Your task to perform on an android device: turn notification dots on Image 0: 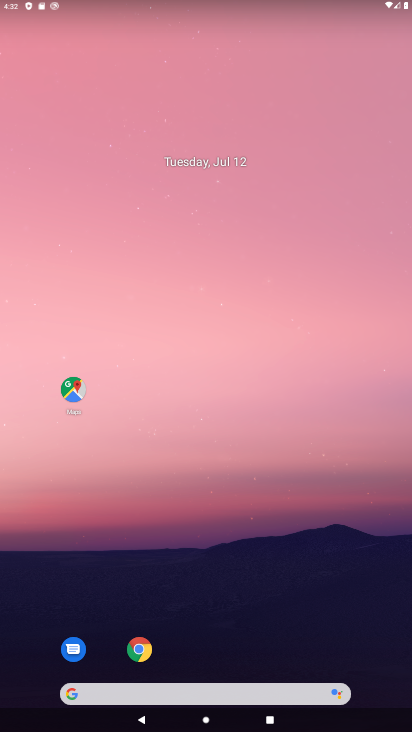
Step 0: drag from (199, 689) to (229, 151)
Your task to perform on an android device: turn notification dots on Image 1: 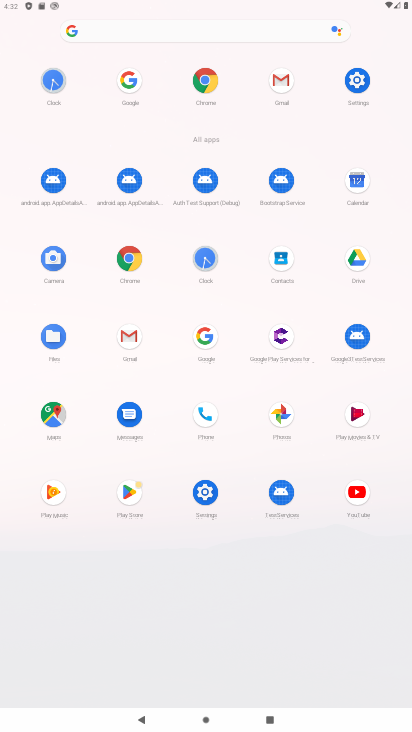
Step 1: click (358, 82)
Your task to perform on an android device: turn notification dots on Image 2: 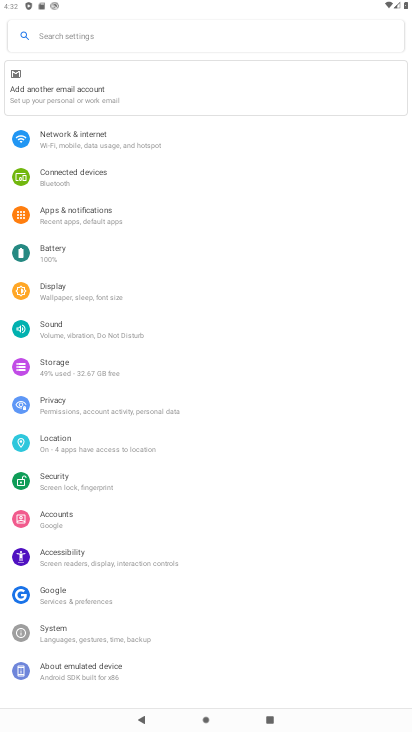
Step 2: click (67, 217)
Your task to perform on an android device: turn notification dots on Image 3: 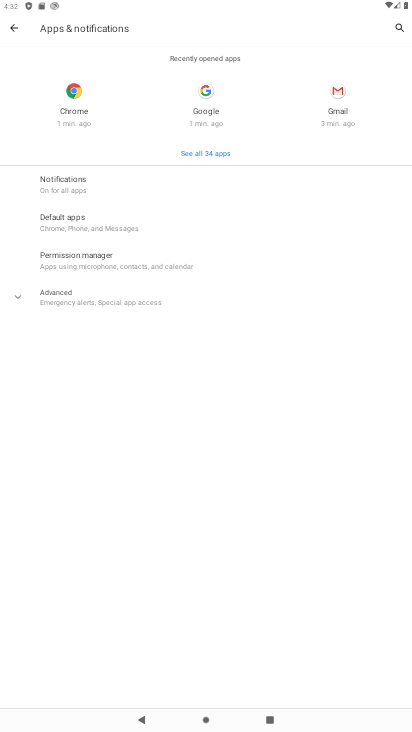
Step 3: click (72, 176)
Your task to perform on an android device: turn notification dots on Image 4: 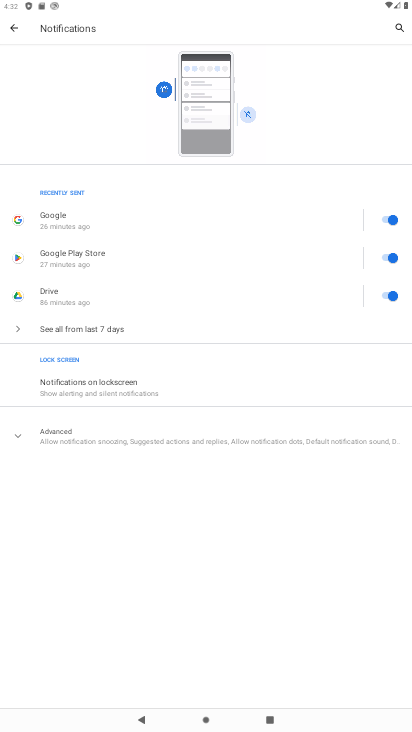
Step 4: click (76, 444)
Your task to perform on an android device: turn notification dots on Image 5: 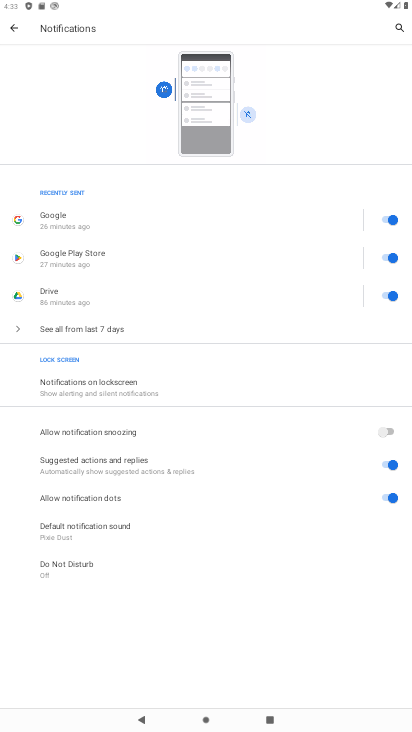
Step 5: task complete